Your task to perform on an android device: change keyboard looks Image 0: 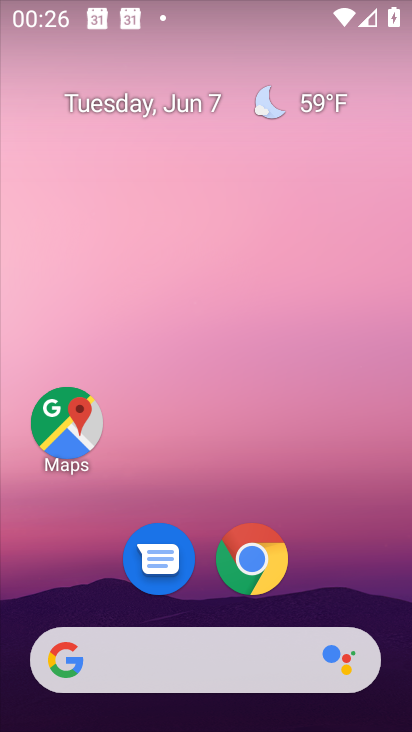
Step 0: drag from (324, 417) to (340, 15)
Your task to perform on an android device: change keyboard looks Image 1: 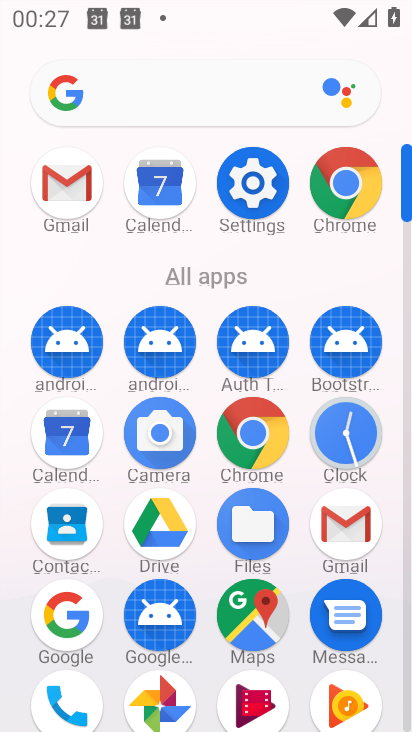
Step 1: drag from (309, 633) to (292, 195)
Your task to perform on an android device: change keyboard looks Image 2: 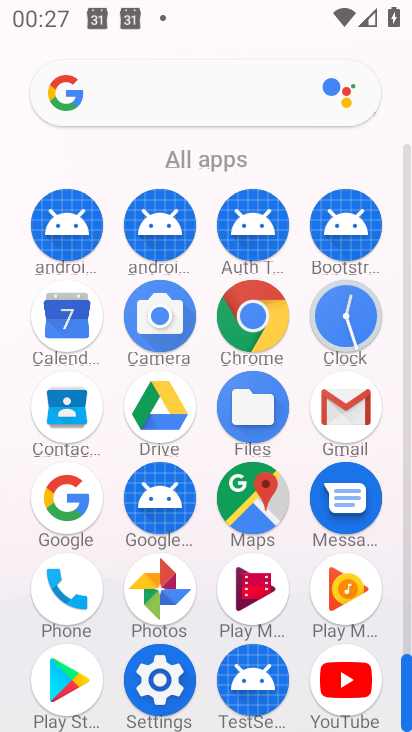
Step 2: drag from (306, 638) to (301, 285)
Your task to perform on an android device: change keyboard looks Image 3: 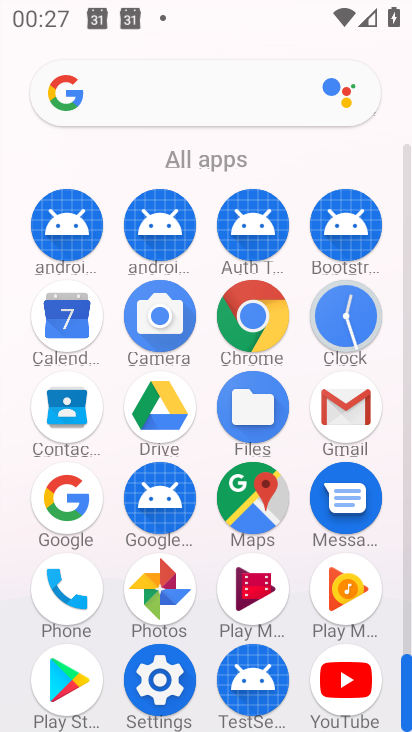
Step 3: click (151, 677)
Your task to perform on an android device: change keyboard looks Image 4: 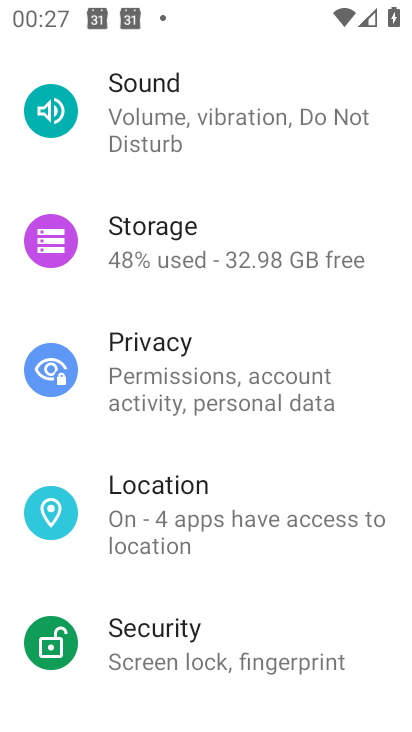
Step 4: drag from (226, 690) to (218, 186)
Your task to perform on an android device: change keyboard looks Image 5: 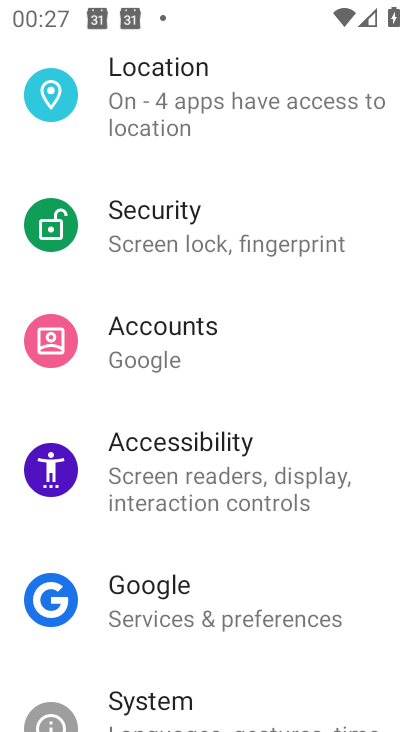
Step 5: drag from (212, 625) to (231, 152)
Your task to perform on an android device: change keyboard looks Image 6: 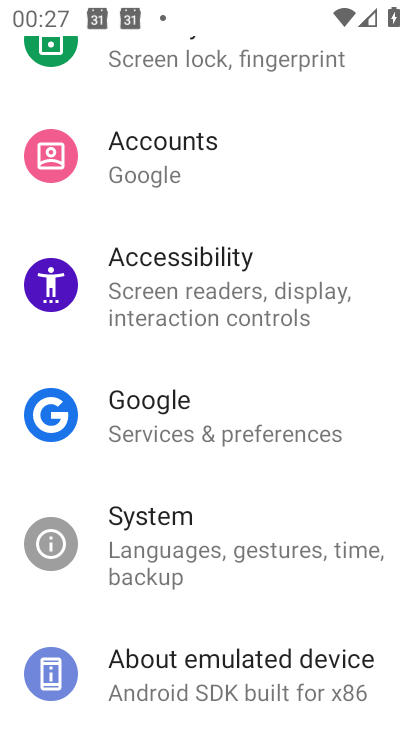
Step 6: click (260, 543)
Your task to perform on an android device: change keyboard looks Image 7: 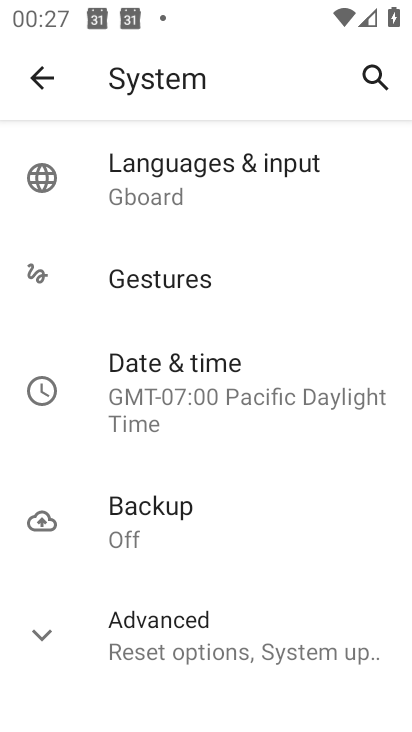
Step 7: click (266, 187)
Your task to perform on an android device: change keyboard looks Image 8: 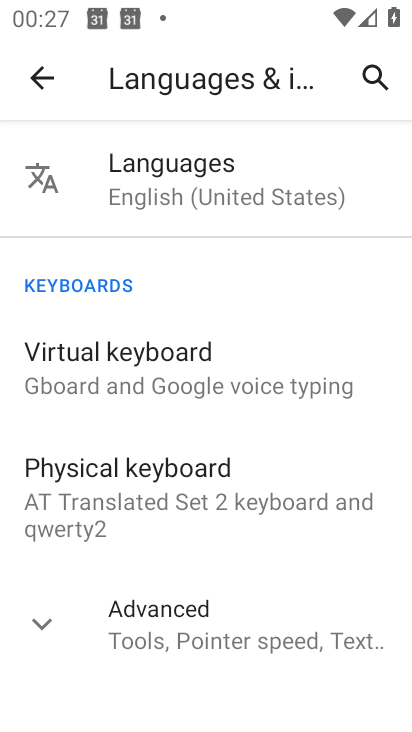
Step 8: drag from (235, 597) to (227, 140)
Your task to perform on an android device: change keyboard looks Image 9: 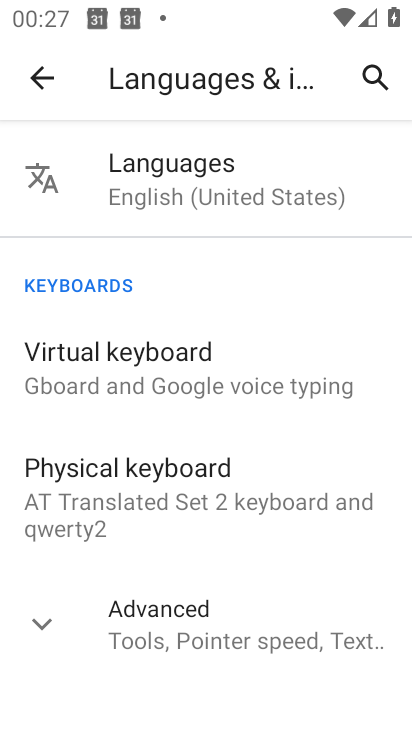
Step 9: drag from (199, 454) to (219, 620)
Your task to perform on an android device: change keyboard looks Image 10: 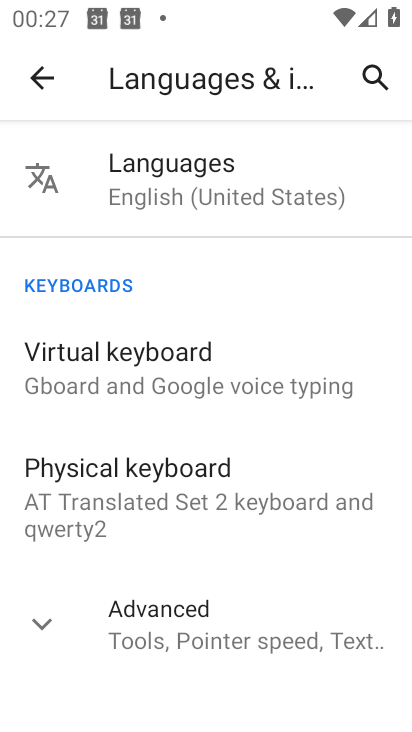
Step 10: click (172, 345)
Your task to perform on an android device: change keyboard looks Image 11: 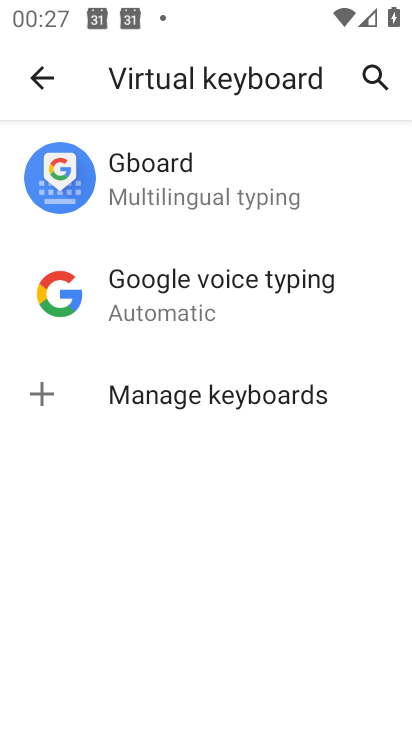
Step 11: click (153, 177)
Your task to perform on an android device: change keyboard looks Image 12: 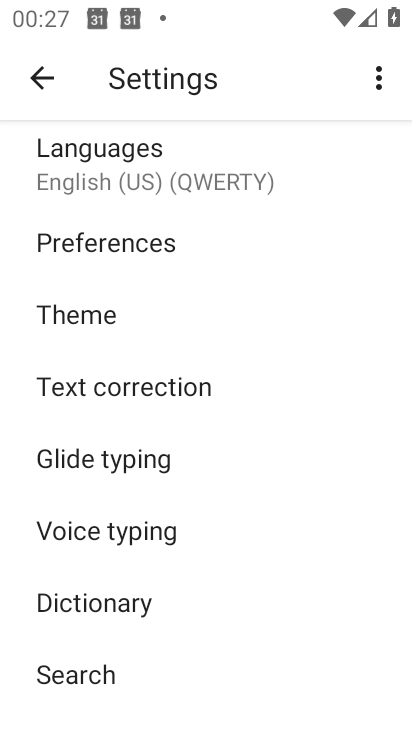
Step 12: click (111, 321)
Your task to perform on an android device: change keyboard looks Image 13: 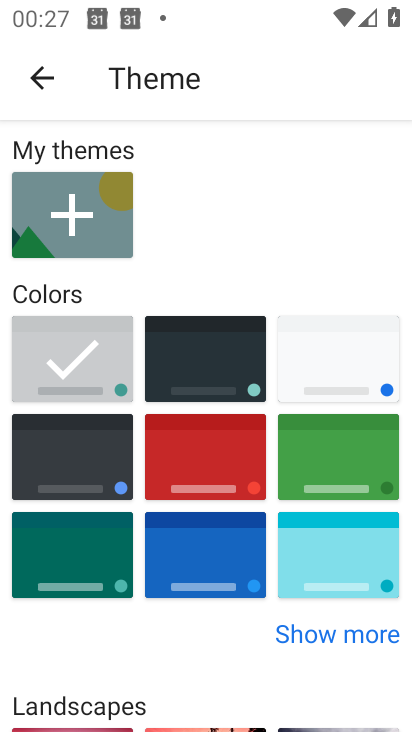
Step 13: click (153, 346)
Your task to perform on an android device: change keyboard looks Image 14: 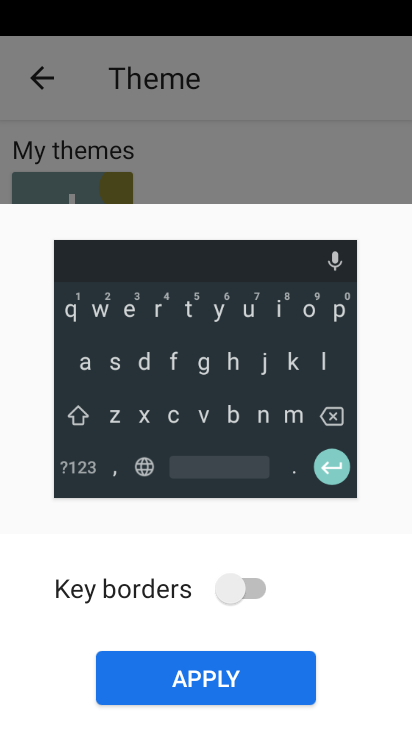
Step 14: click (216, 666)
Your task to perform on an android device: change keyboard looks Image 15: 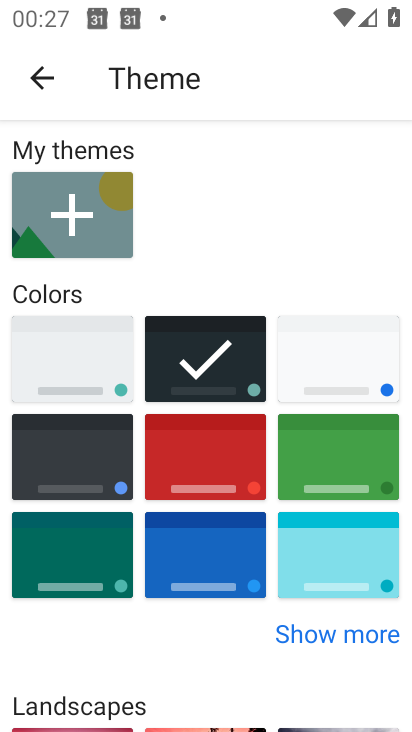
Step 15: task complete